Your task to perform on an android device: change the clock display to analog Image 0: 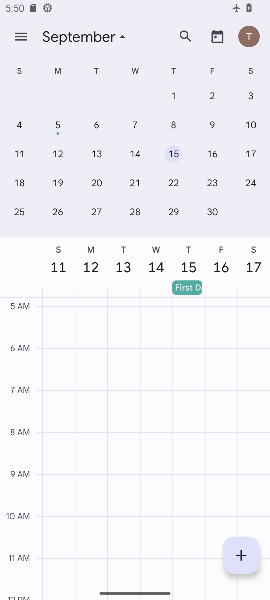
Step 0: press home button
Your task to perform on an android device: change the clock display to analog Image 1: 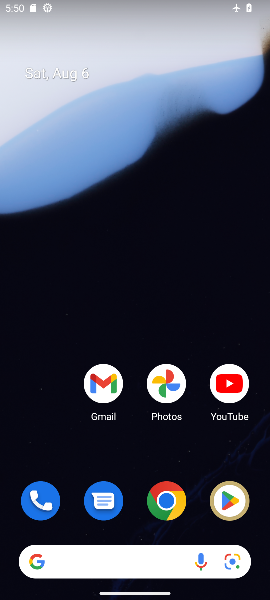
Step 1: drag from (58, 459) to (85, 63)
Your task to perform on an android device: change the clock display to analog Image 2: 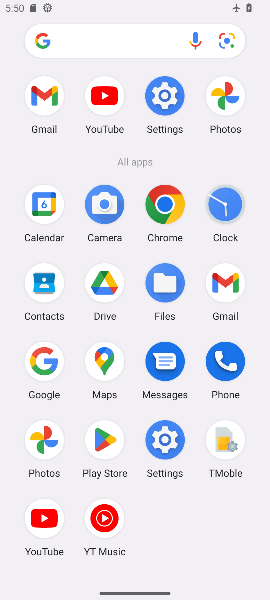
Step 2: click (228, 220)
Your task to perform on an android device: change the clock display to analog Image 3: 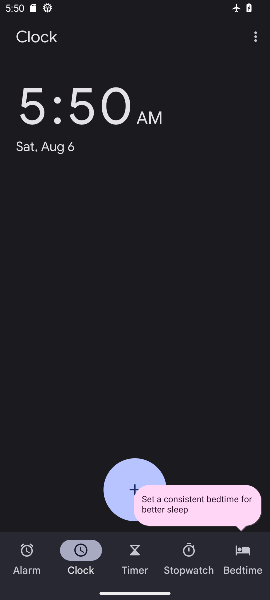
Step 3: click (251, 50)
Your task to perform on an android device: change the clock display to analog Image 4: 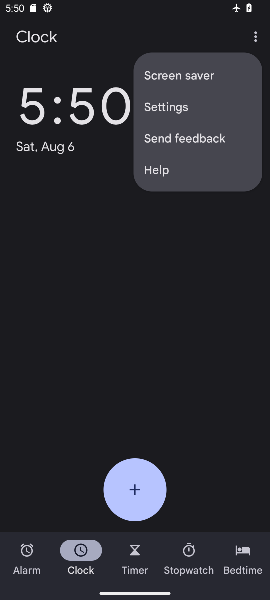
Step 4: click (251, 50)
Your task to perform on an android device: change the clock display to analog Image 5: 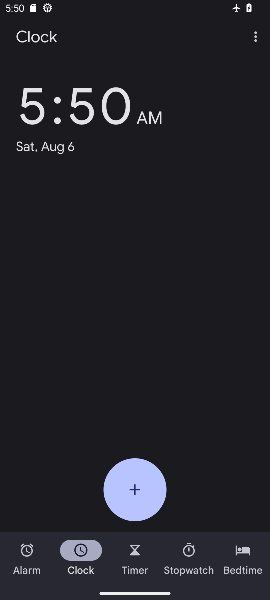
Step 5: click (211, 112)
Your task to perform on an android device: change the clock display to analog Image 6: 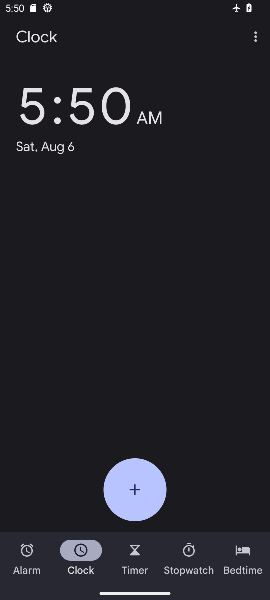
Step 6: click (253, 36)
Your task to perform on an android device: change the clock display to analog Image 7: 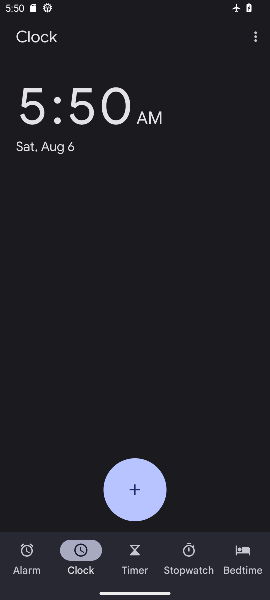
Step 7: click (257, 40)
Your task to perform on an android device: change the clock display to analog Image 8: 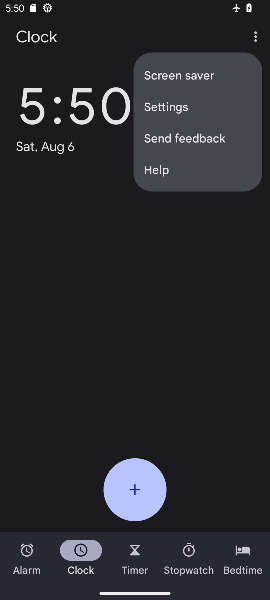
Step 8: click (166, 104)
Your task to perform on an android device: change the clock display to analog Image 9: 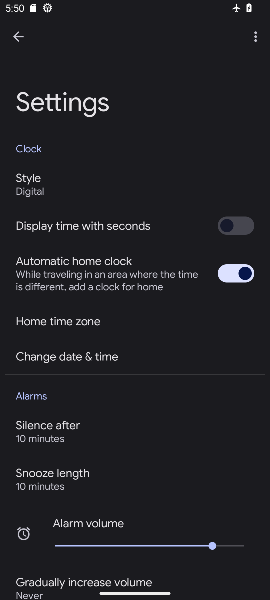
Step 9: click (87, 184)
Your task to perform on an android device: change the clock display to analog Image 10: 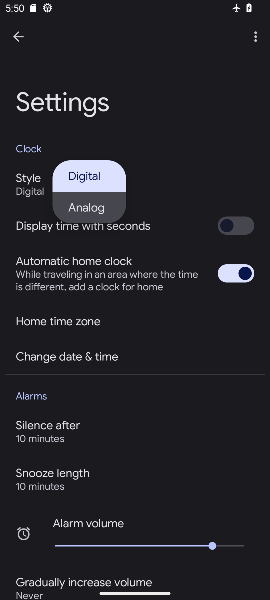
Step 10: click (81, 210)
Your task to perform on an android device: change the clock display to analog Image 11: 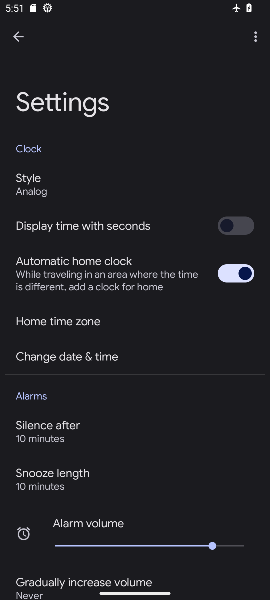
Step 11: task complete